Your task to perform on an android device: Open battery settings Image 0: 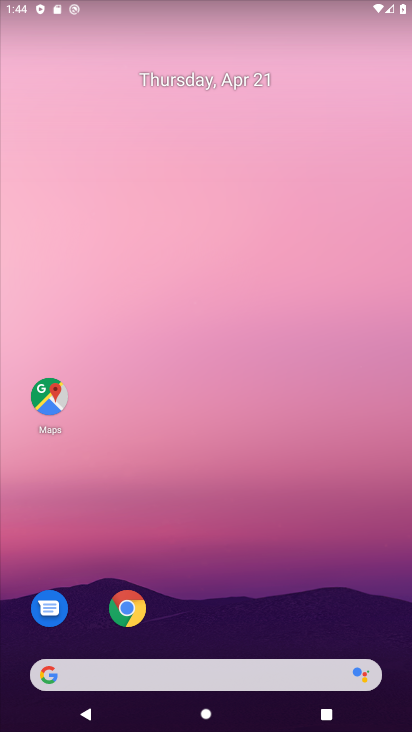
Step 0: click (328, 39)
Your task to perform on an android device: Open battery settings Image 1: 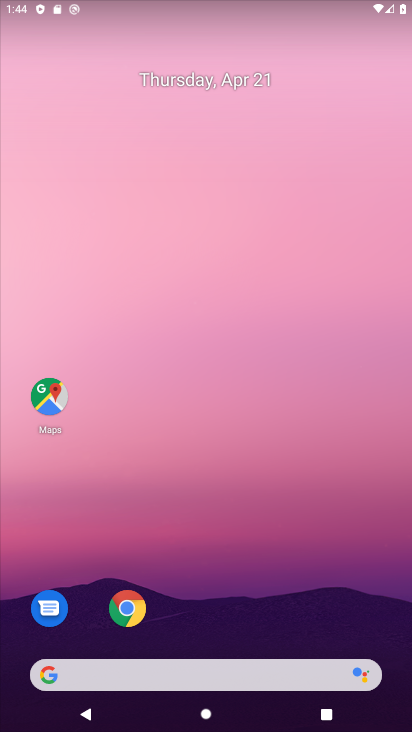
Step 1: drag from (297, 511) to (377, 45)
Your task to perform on an android device: Open battery settings Image 2: 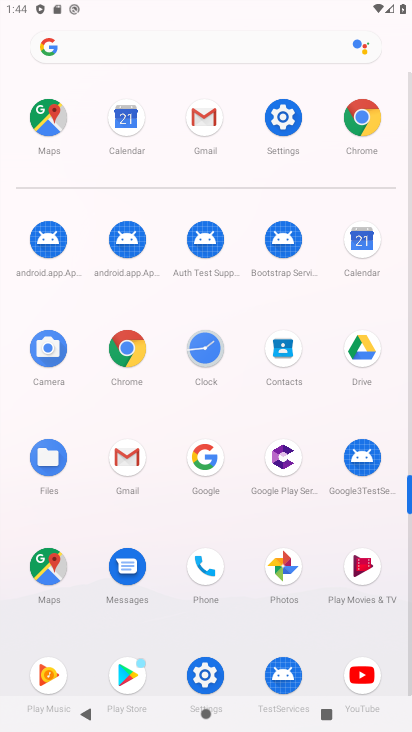
Step 2: click (276, 103)
Your task to perform on an android device: Open battery settings Image 3: 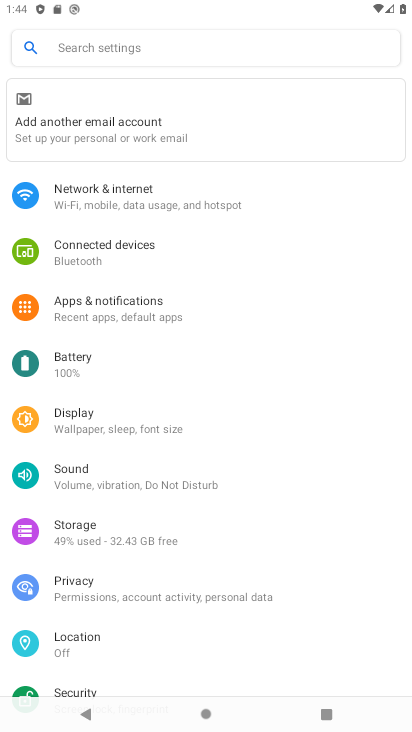
Step 3: click (90, 372)
Your task to perform on an android device: Open battery settings Image 4: 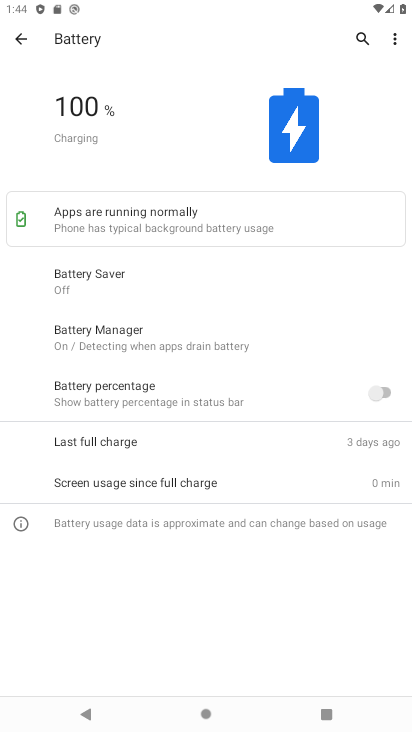
Step 4: task complete